Your task to perform on an android device: change the clock style Image 0: 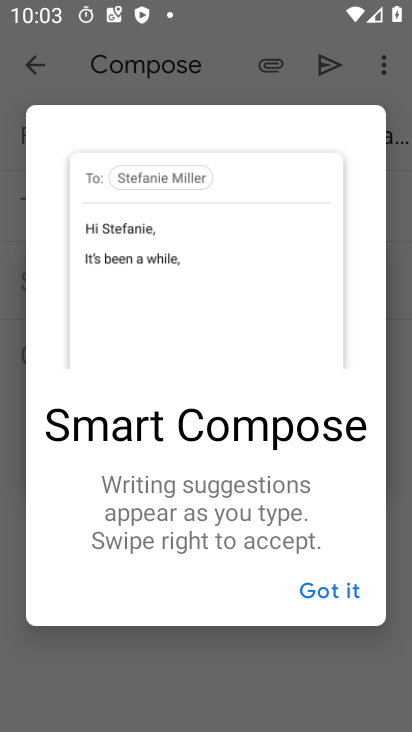
Step 0: press home button
Your task to perform on an android device: change the clock style Image 1: 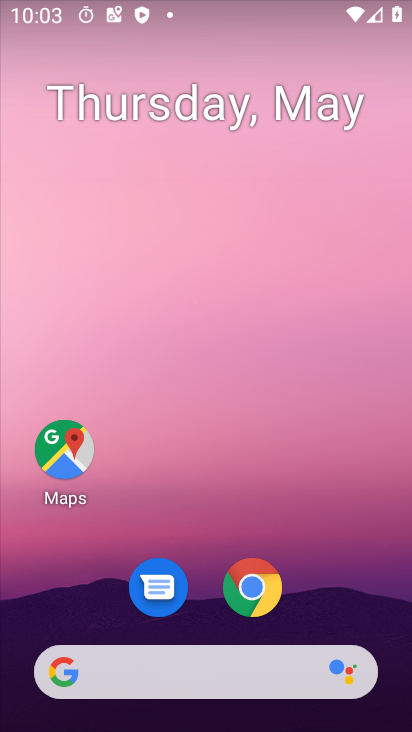
Step 1: drag from (345, 623) to (344, 16)
Your task to perform on an android device: change the clock style Image 2: 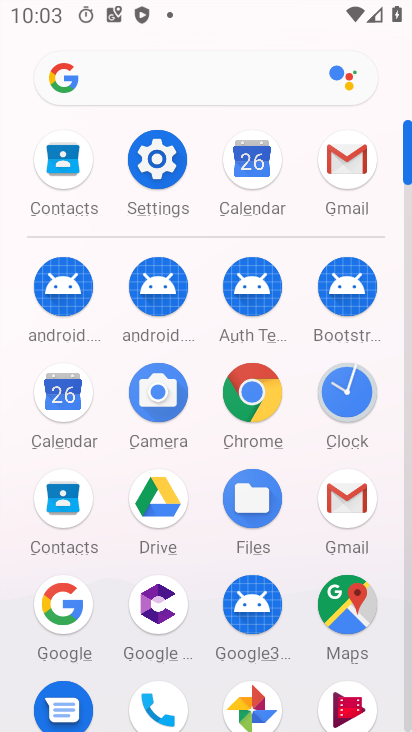
Step 2: click (348, 398)
Your task to perform on an android device: change the clock style Image 3: 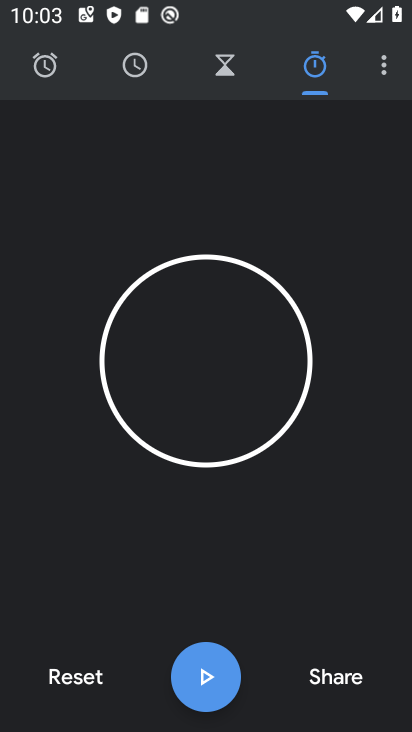
Step 3: click (383, 77)
Your task to perform on an android device: change the clock style Image 4: 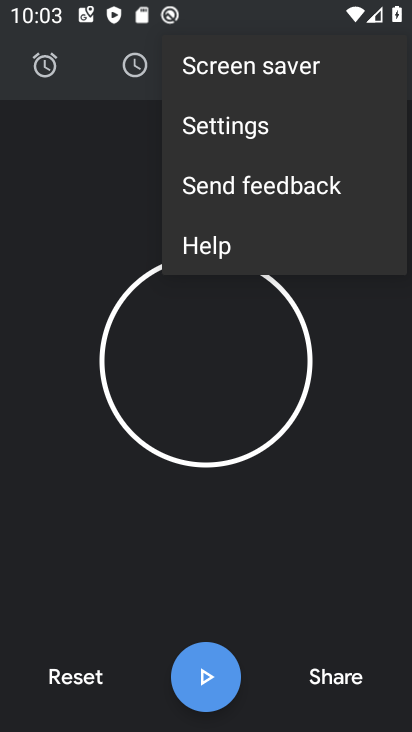
Step 4: click (198, 140)
Your task to perform on an android device: change the clock style Image 5: 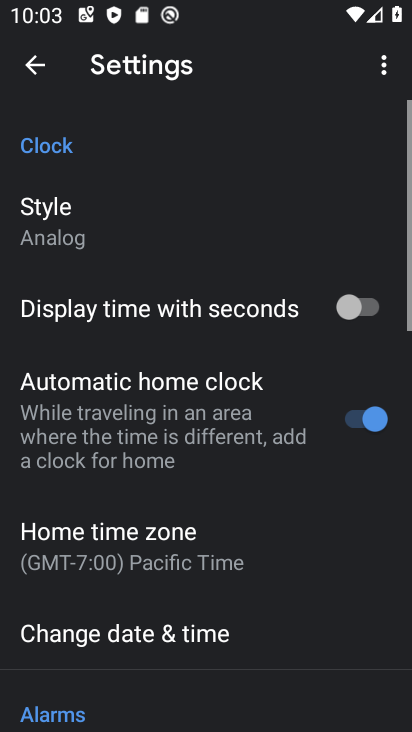
Step 5: click (70, 242)
Your task to perform on an android device: change the clock style Image 6: 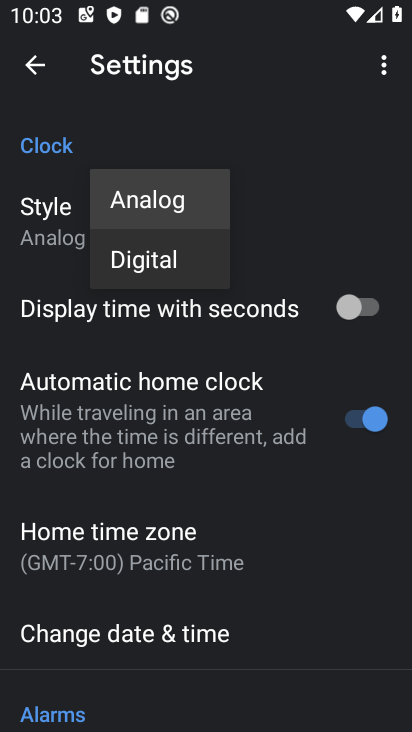
Step 6: click (167, 266)
Your task to perform on an android device: change the clock style Image 7: 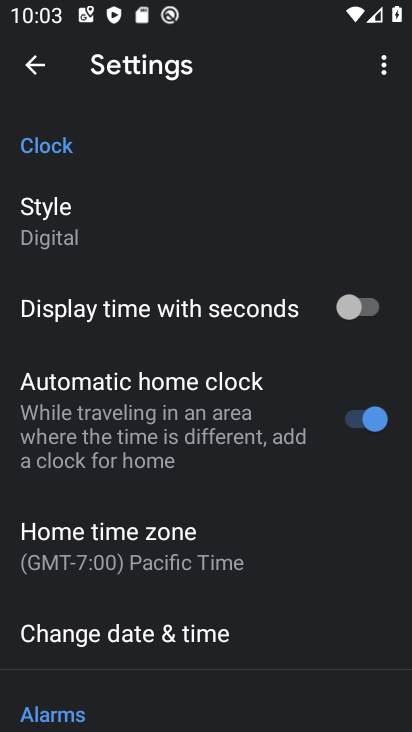
Step 7: task complete